Your task to perform on an android device: set the timer Image 0: 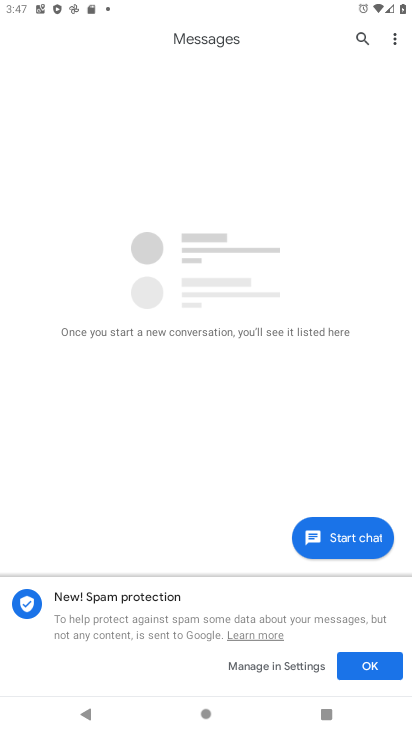
Step 0: press home button
Your task to perform on an android device: set the timer Image 1: 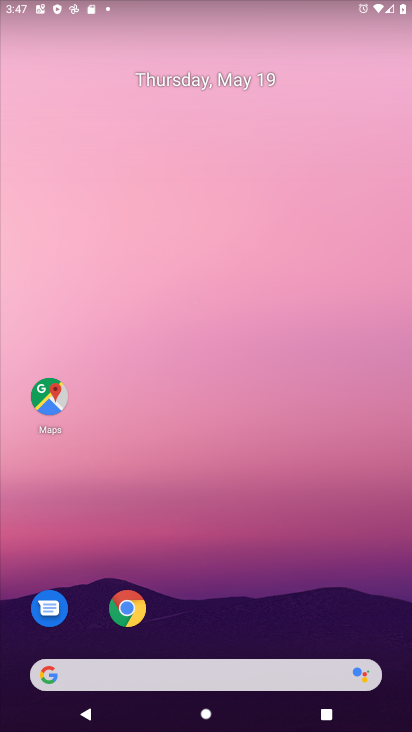
Step 1: drag from (260, 562) to (346, 18)
Your task to perform on an android device: set the timer Image 2: 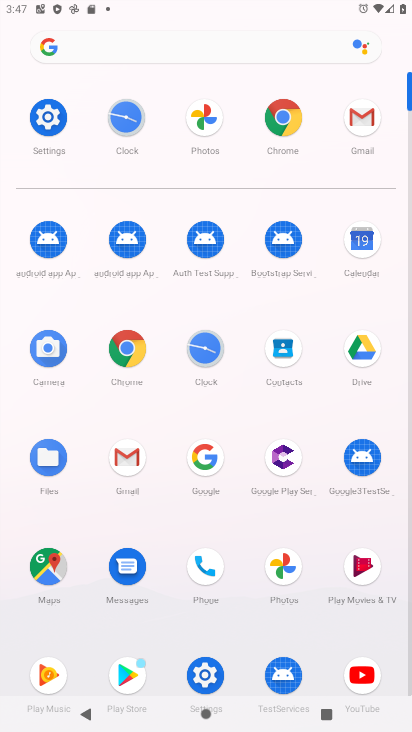
Step 2: click (141, 139)
Your task to perform on an android device: set the timer Image 3: 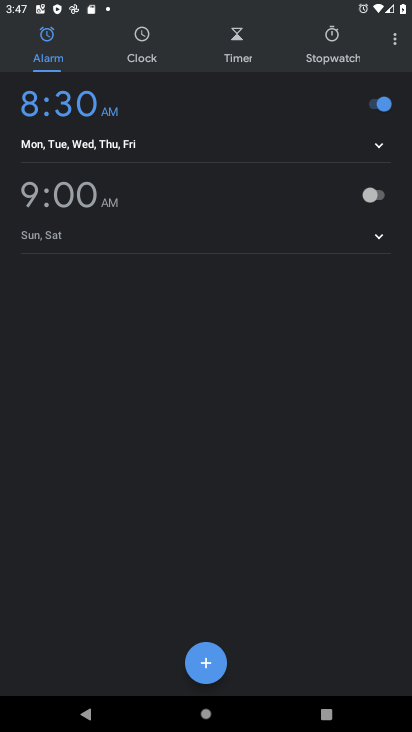
Step 3: click (255, 50)
Your task to perform on an android device: set the timer Image 4: 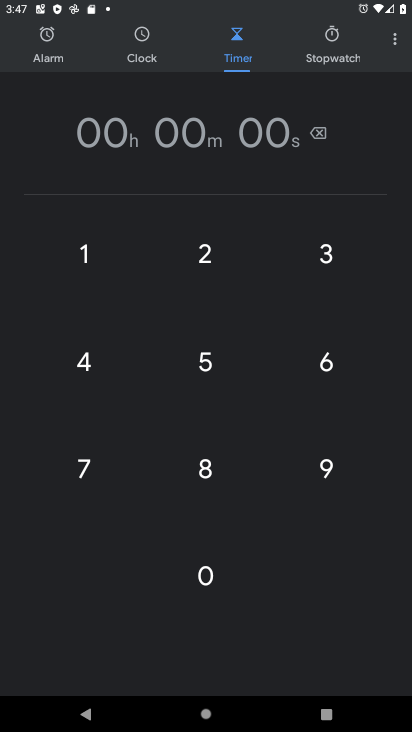
Step 4: task complete